Your task to perform on an android device: open app "Life360: Find Family & Friends" (install if not already installed), go to login, and select forgot password Image 0: 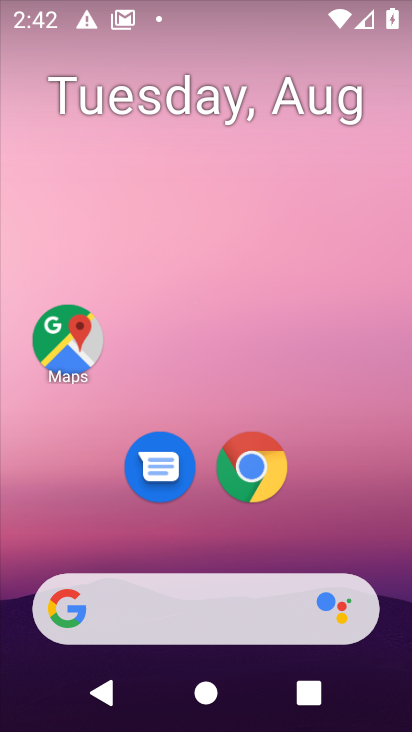
Step 0: drag from (380, 538) to (281, 119)
Your task to perform on an android device: open app "Life360: Find Family & Friends" (install if not already installed), go to login, and select forgot password Image 1: 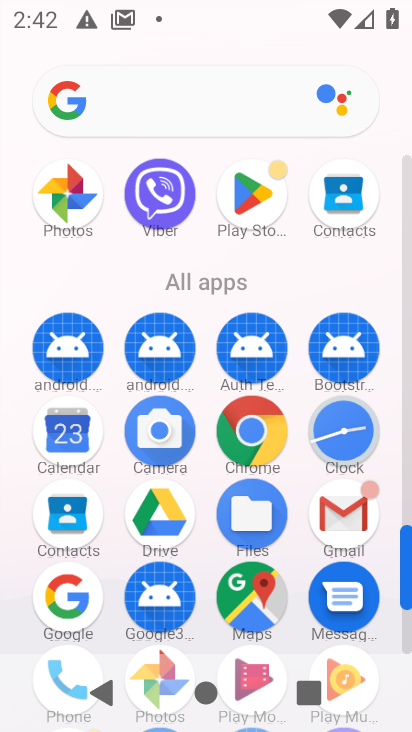
Step 1: click (267, 194)
Your task to perform on an android device: open app "Life360: Find Family & Friends" (install if not already installed), go to login, and select forgot password Image 2: 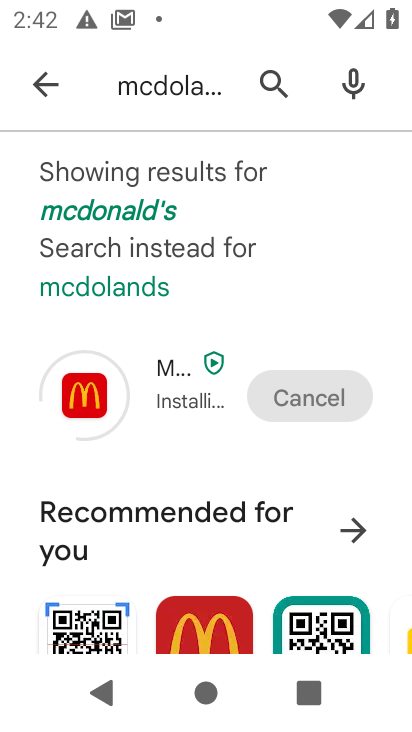
Step 2: click (287, 99)
Your task to perform on an android device: open app "Life360: Find Family & Friends" (install if not already installed), go to login, and select forgot password Image 3: 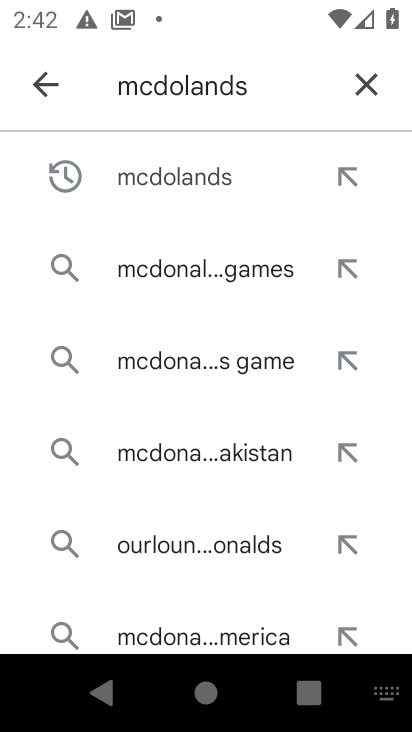
Step 3: click (374, 97)
Your task to perform on an android device: open app "Life360: Find Family & Friends" (install if not already installed), go to login, and select forgot password Image 4: 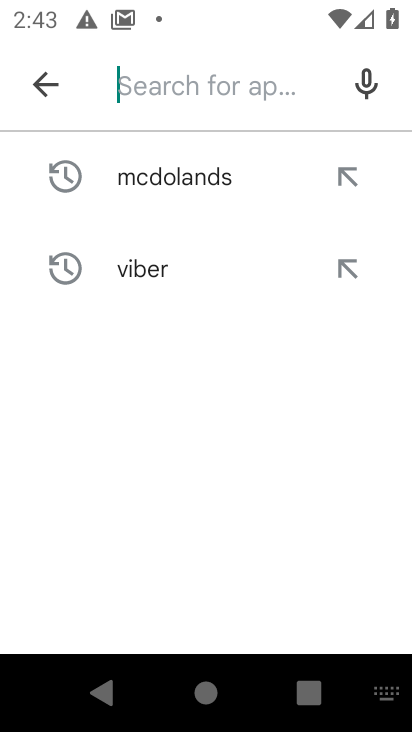
Step 4: type "life 360"
Your task to perform on an android device: open app "Life360: Find Family & Friends" (install if not already installed), go to login, and select forgot password Image 5: 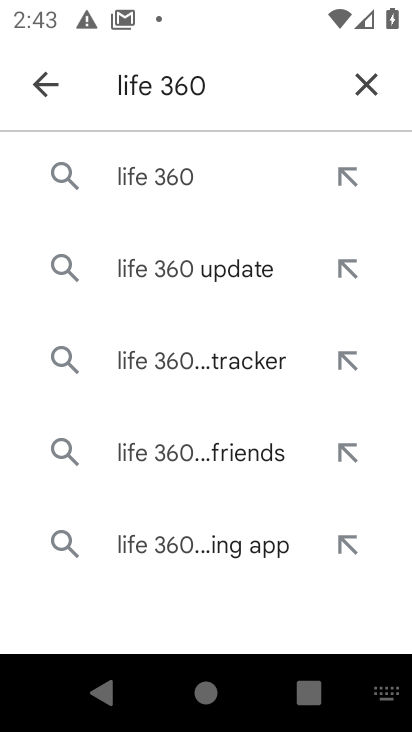
Step 5: click (189, 174)
Your task to perform on an android device: open app "Life360: Find Family & Friends" (install if not already installed), go to login, and select forgot password Image 6: 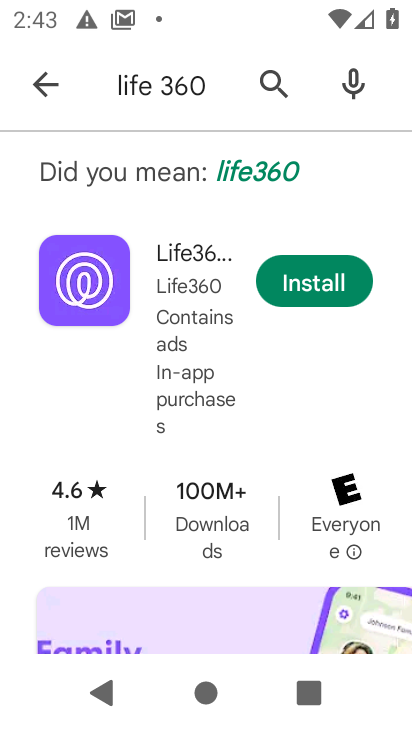
Step 6: click (301, 285)
Your task to perform on an android device: open app "Life360: Find Family & Friends" (install if not already installed), go to login, and select forgot password Image 7: 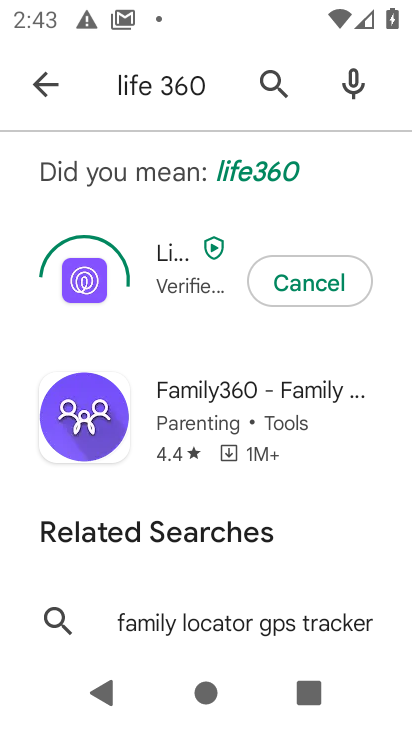
Step 7: task complete